Your task to perform on an android device: change the clock style Image 0: 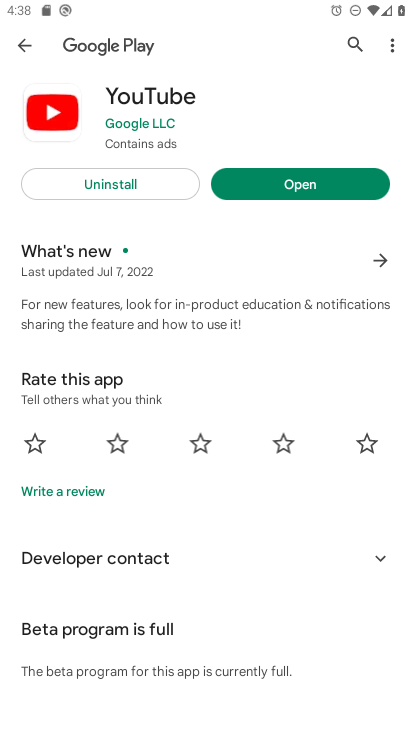
Step 0: press home button
Your task to perform on an android device: change the clock style Image 1: 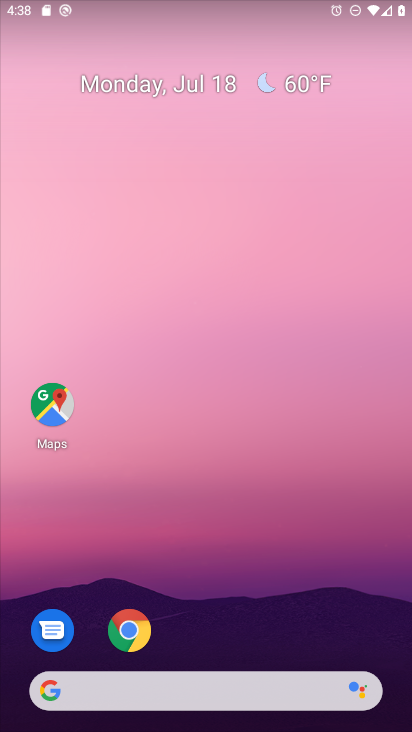
Step 1: drag from (225, 559) to (179, 8)
Your task to perform on an android device: change the clock style Image 2: 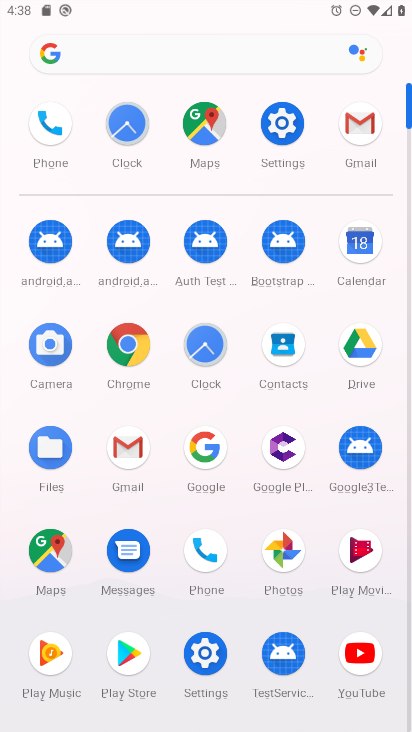
Step 2: click (124, 132)
Your task to perform on an android device: change the clock style Image 3: 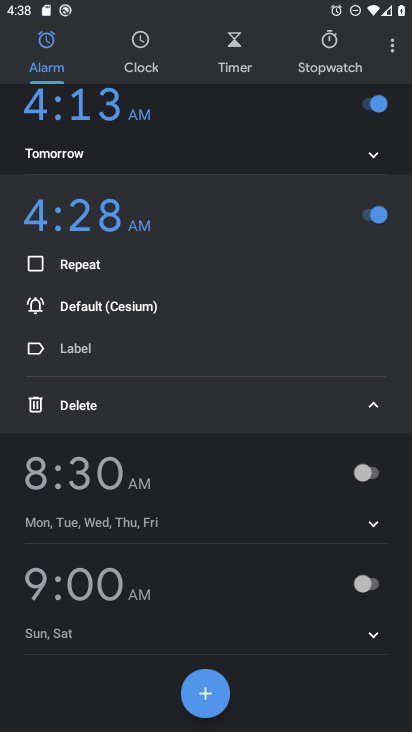
Step 3: click (389, 48)
Your task to perform on an android device: change the clock style Image 4: 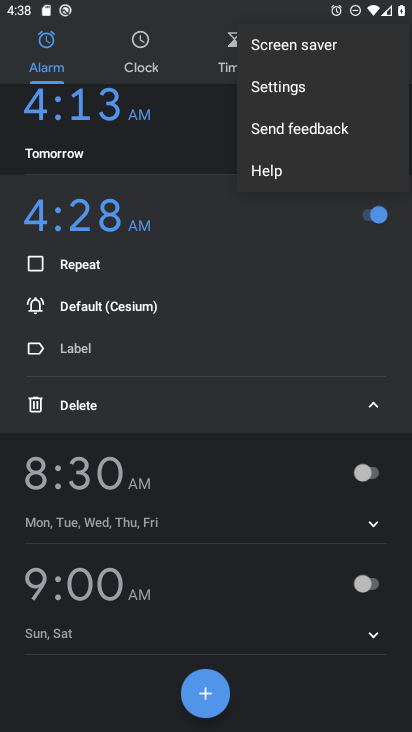
Step 4: click (287, 89)
Your task to perform on an android device: change the clock style Image 5: 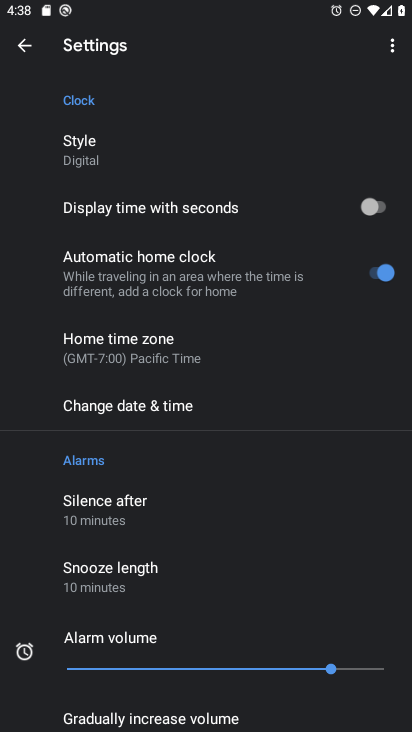
Step 5: click (81, 150)
Your task to perform on an android device: change the clock style Image 6: 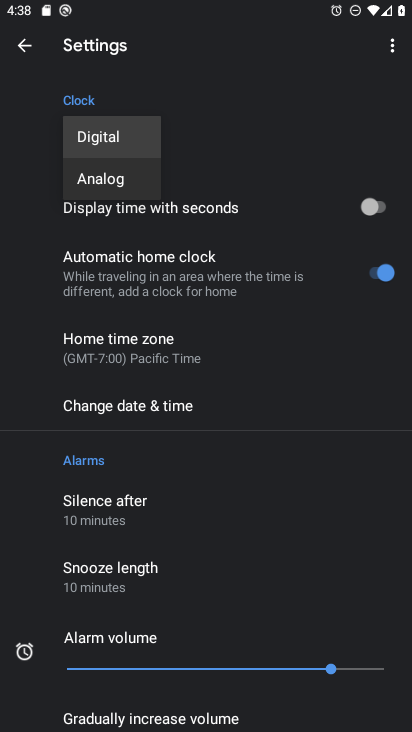
Step 6: click (95, 184)
Your task to perform on an android device: change the clock style Image 7: 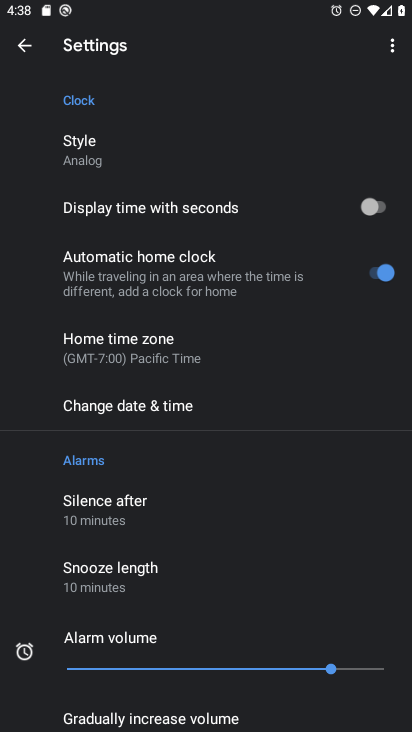
Step 7: task complete